Your task to perform on an android device: Search for vegetarian restaurants on Maps Image 0: 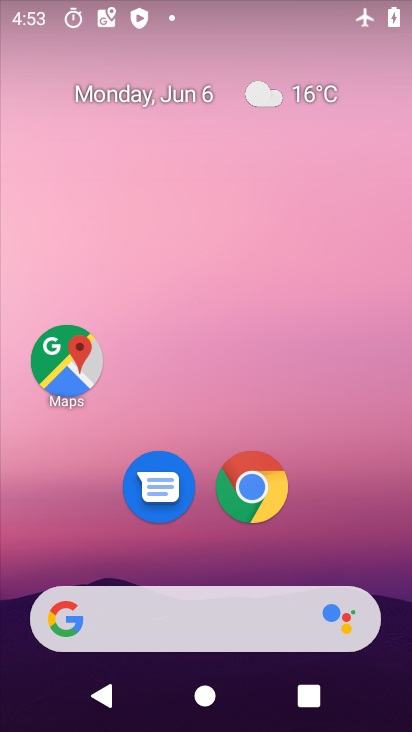
Step 0: click (74, 360)
Your task to perform on an android device: Search for vegetarian restaurants on Maps Image 1: 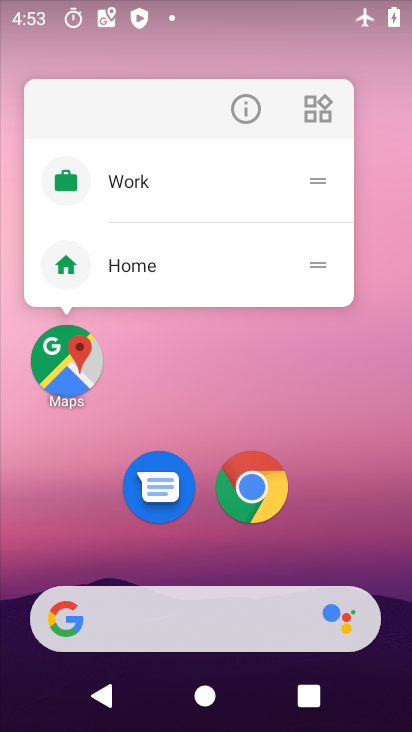
Step 1: click (73, 363)
Your task to perform on an android device: Search for vegetarian restaurants on Maps Image 2: 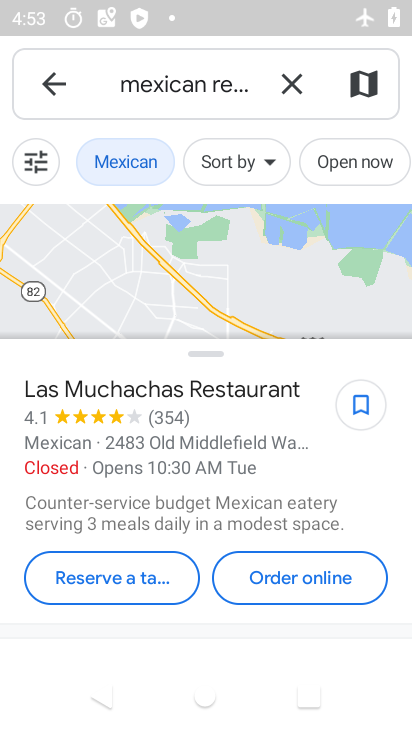
Step 2: click (238, 115)
Your task to perform on an android device: Search for vegetarian restaurants on Maps Image 3: 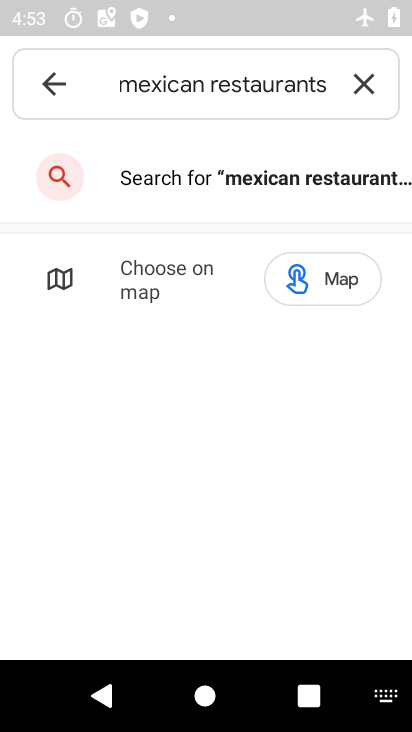
Step 3: click (369, 82)
Your task to perform on an android device: Search for vegetarian restaurants on Maps Image 4: 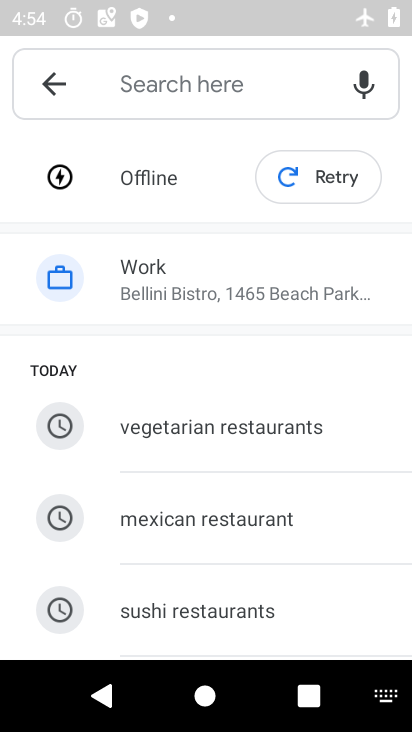
Step 4: type "vegetarian restaurants"
Your task to perform on an android device: Search for vegetarian restaurants on Maps Image 5: 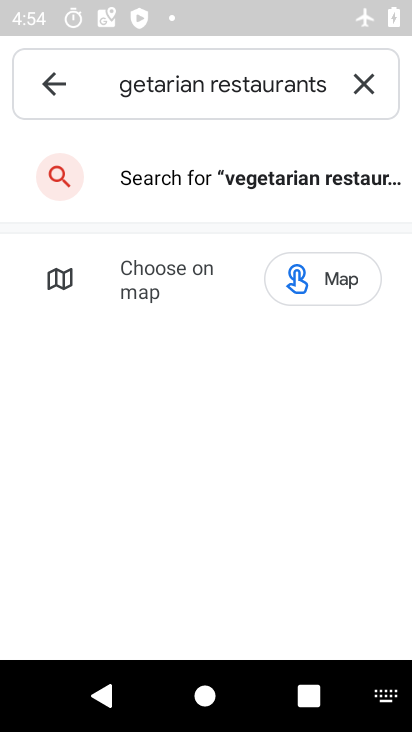
Step 5: press enter
Your task to perform on an android device: Search for vegetarian restaurants on Maps Image 6: 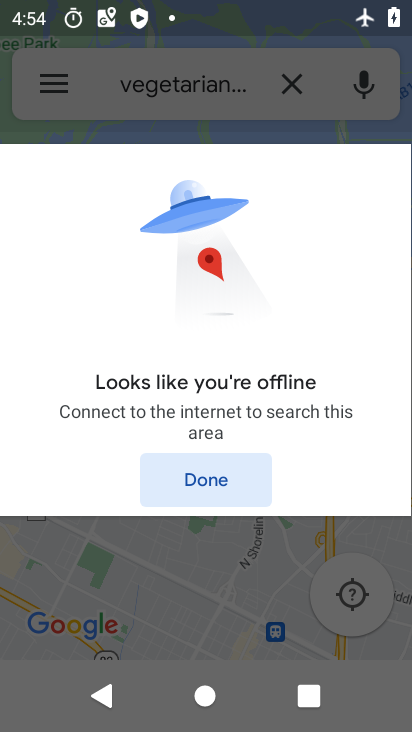
Step 6: task complete